Your task to perform on an android device: open chrome and create a bookmark for the current page Image 0: 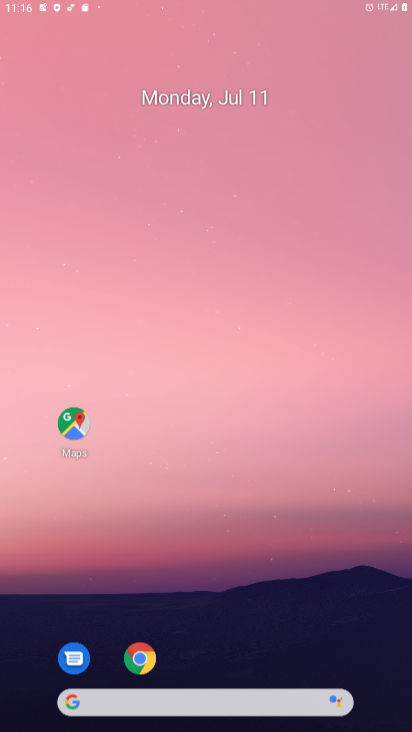
Step 0: drag from (247, 248) to (315, 38)
Your task to perform on an android device: open chrome and create a bookmark for the current page Image 1: 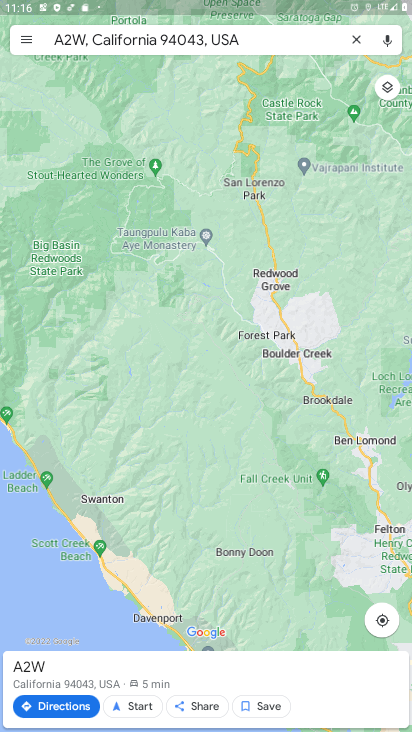
Step 1: press home button
Your task to perform on an android device: open chrome and create a bookmark for the current page Image 2: 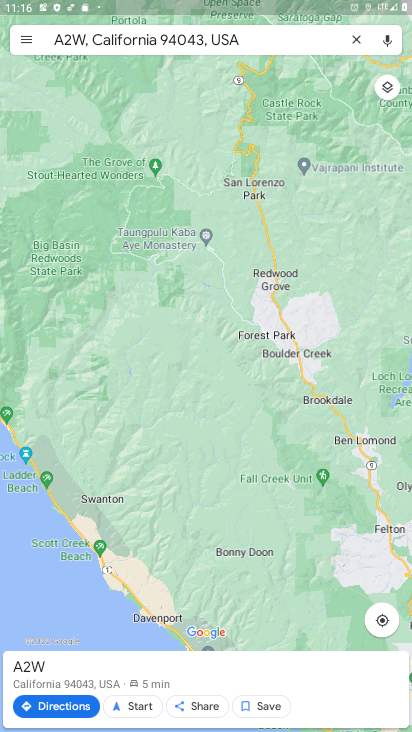
Step 2: drag from (198, 568) to (303, 19)
Your task to perform on an android device: open chrome and create a bookmark for the current page Image 3: 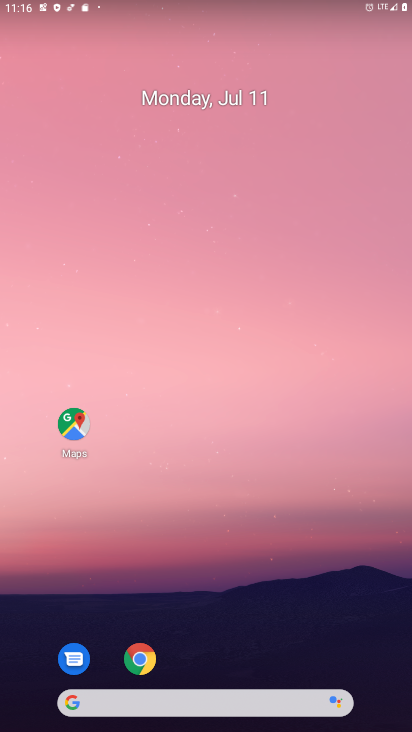
Step 3: drag from (181, 654) to (330, 42)
Your task to perform on an android device: open chrome and create a bookmark for the current page Image 4: 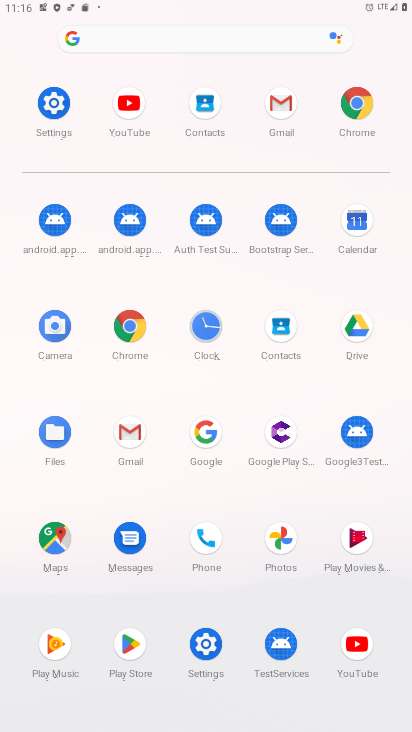
Step 4: click (122, 327)
Your task to perform on an android device: open chrome and create a bookmark for the current page Image 5: 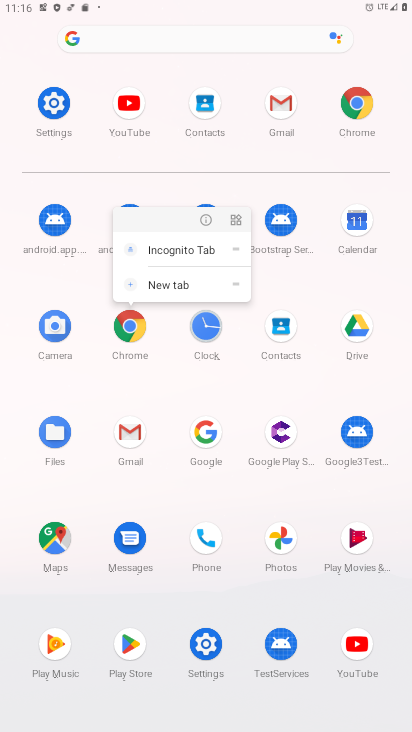
Step 5: click (206, 215)
Your task to perform on an android device: open chrome and create a bookmark for the current page Image 6: 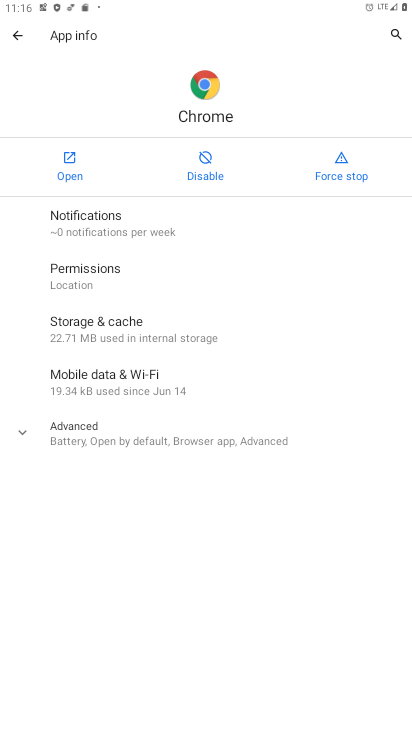
Step 6: click (57, 165)
Your task to perform on an android device: open chrome and create a bookmark for the current page Image 7: 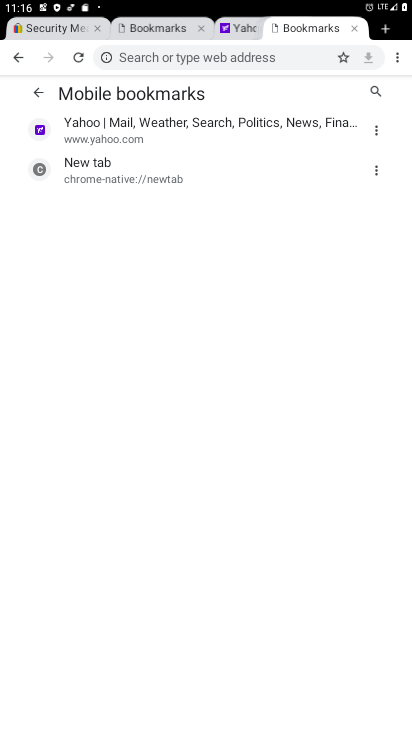
Step 7: click (400, 61)
Your task to perform on an android device: open chrome and create a bookmark for the current page Image 8: 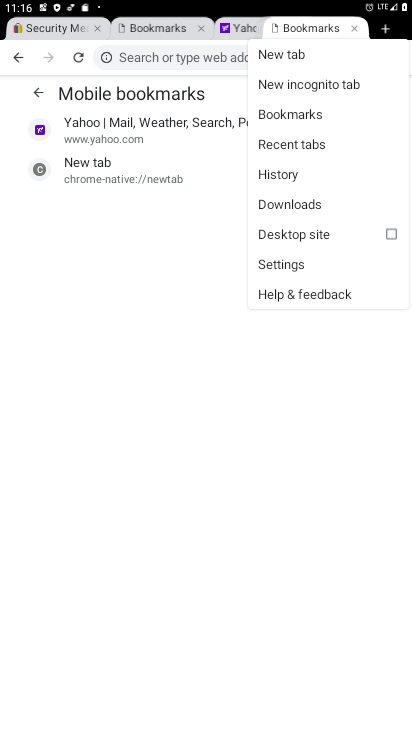
Step 8: click (300, 118)
Your task to perform on an android device: open chrome and create a bookmark for the current page Image 9: 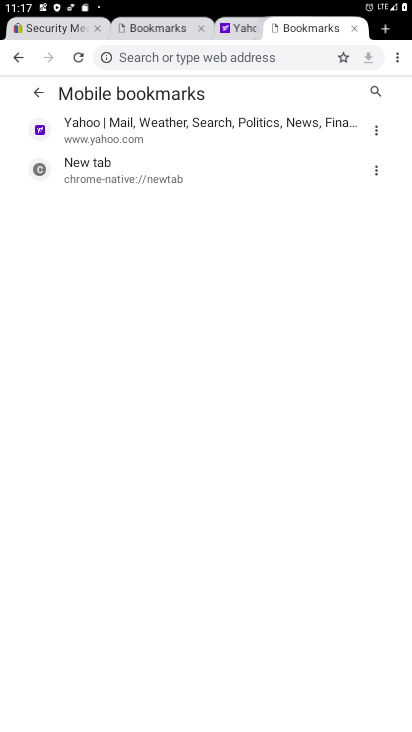
Step 9: click (397, 56)
Your task to perform on an android device: open chrome and create a bookmark for the current page Image 10: 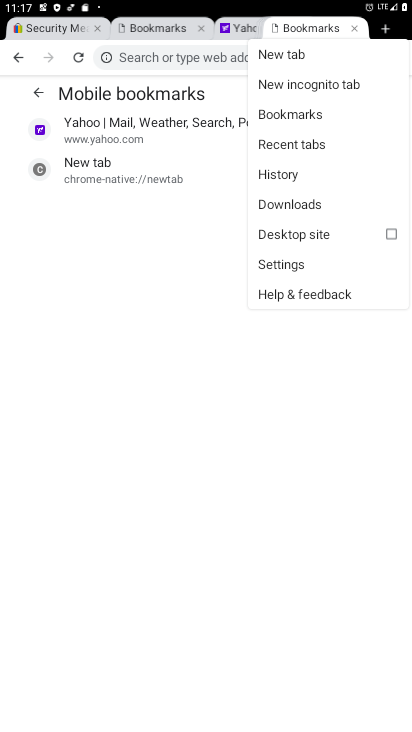
Step 10: click (132, 112)
Your task to perform on an android device: open chrome and create a bookmark for the current page Image 11: 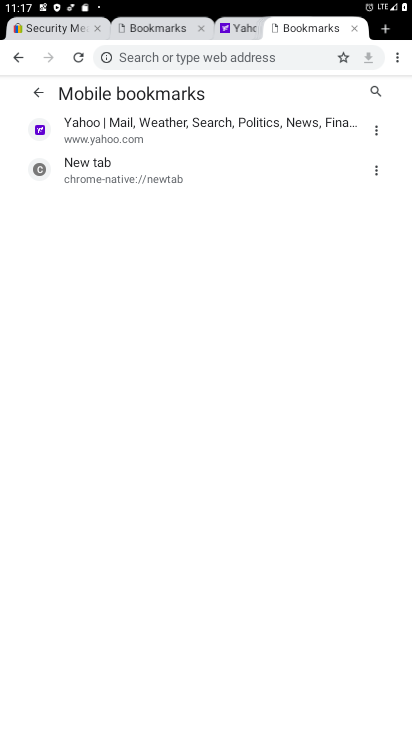
Step 11: click (343, 53)
Your task to perform on an android device: open chrome and create a bookmark for the current page Image 12: 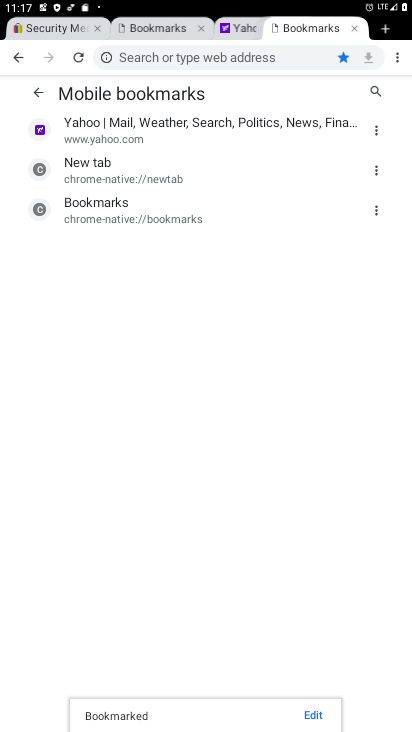
Step 12: task complete